Your task to perform on an android device: Check the weather Image 0: 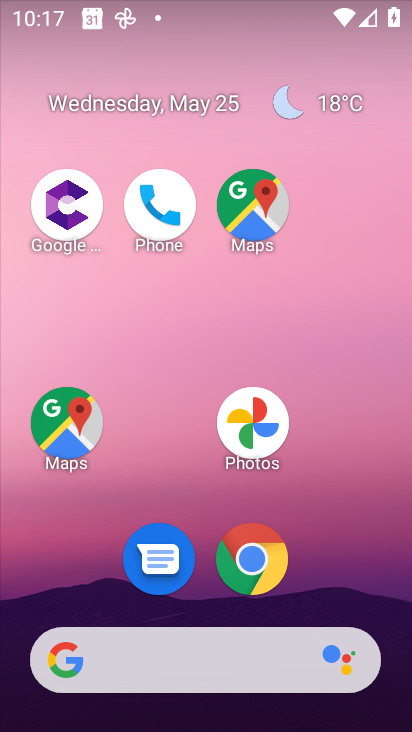
Step 0: click (349, 102)
Your task to perform on an android device: Check the weather Image 1: 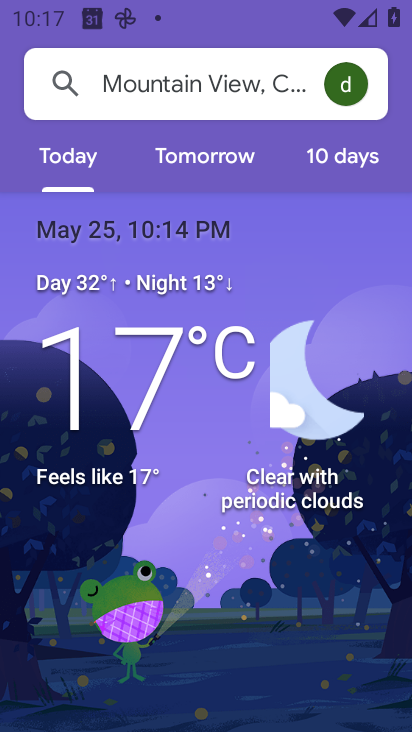
Step 1: task complete